Your task to perform on an android device: change your default location settings in chrome Image 0: 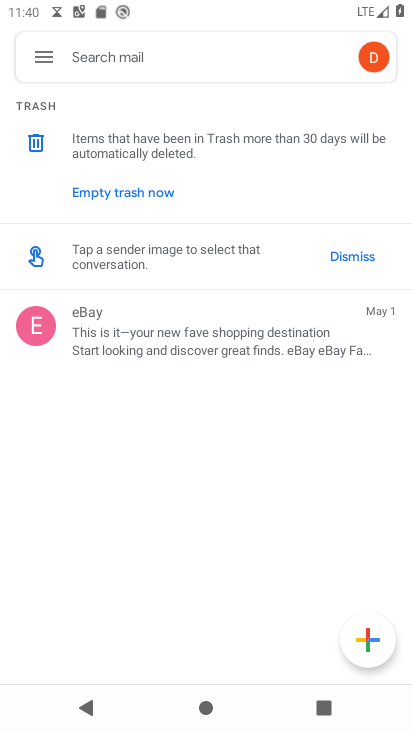
Step 0: press home button
Your task to perform on an android device: change your default location settings in chrome Image 1: 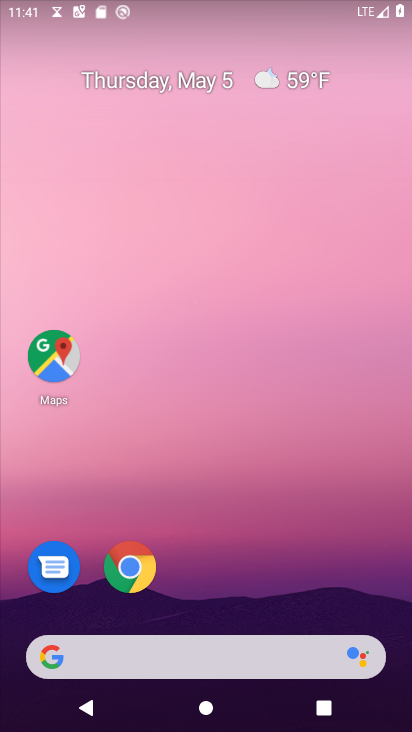
Step 1: click (119, 584)
Your task to perform on an android device: change your default location settings in chrome Image 2: 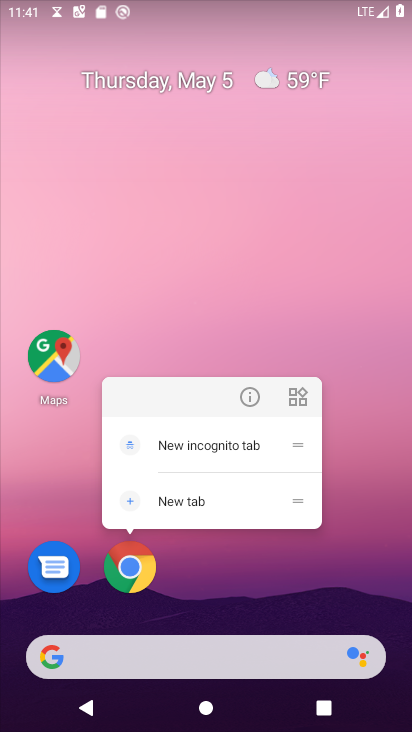
Step 2: click (119, 582)
Your task to perform on an android device: change your default location settings in chrome Image 3: 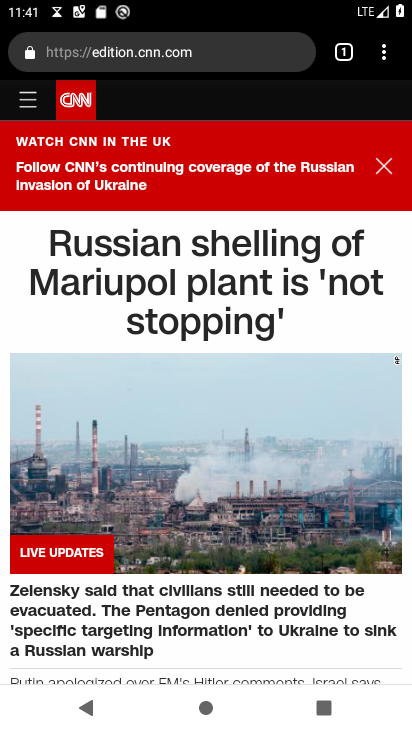
Step 3: drag from (390, 57) to (198, 582)
Your task to perform on an android device: change your default location settings in chrome Image 4: 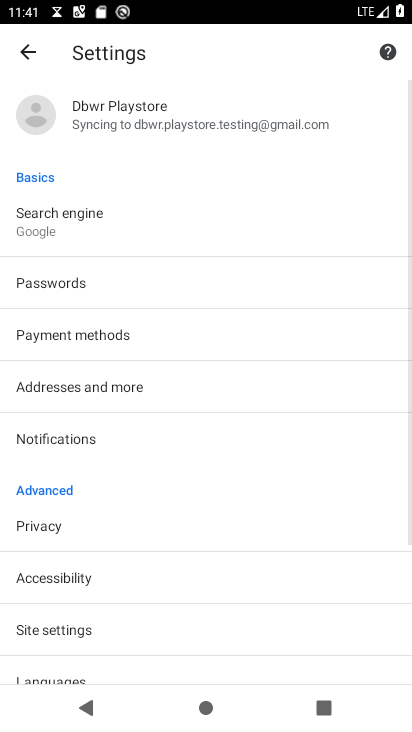
Step 4: click (51, 631)
Your task to perform on an android device: change your default location settings in chrome Image 5: 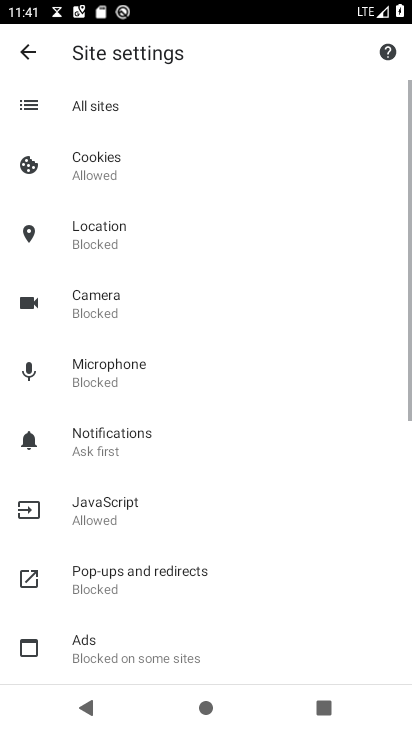
Step 5: click (82, 235)
Your task to perform on an android device: change your default location settings in chrome Image 6: 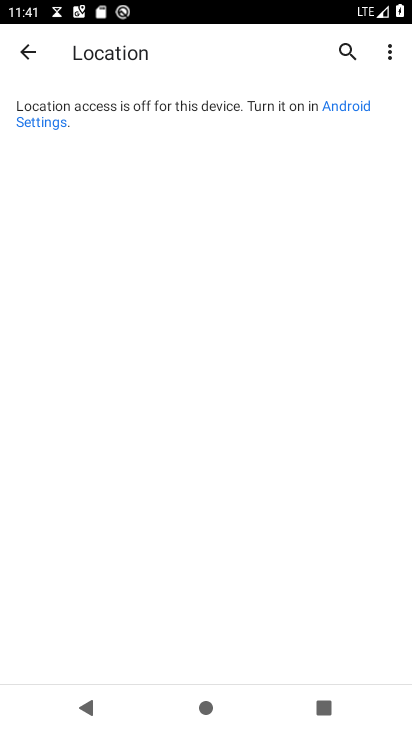
Step 6: click (327, 107)
Your task to perform on an android device: change your default location settings in chrome Image 7: 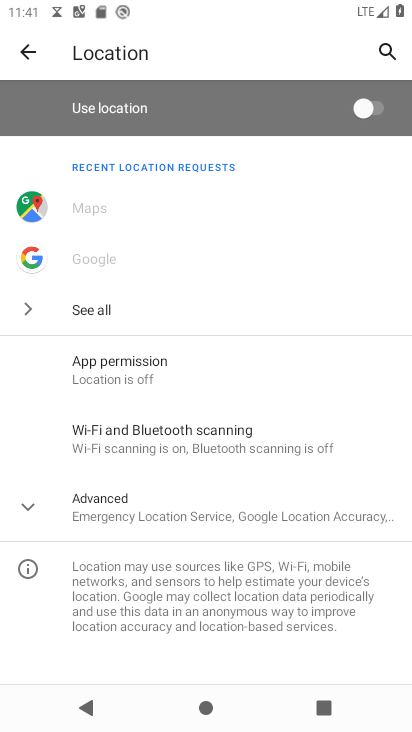
Step 7: click (352, 101)
Your task to perform on an android device: change your default location settings in chrome Image 8: 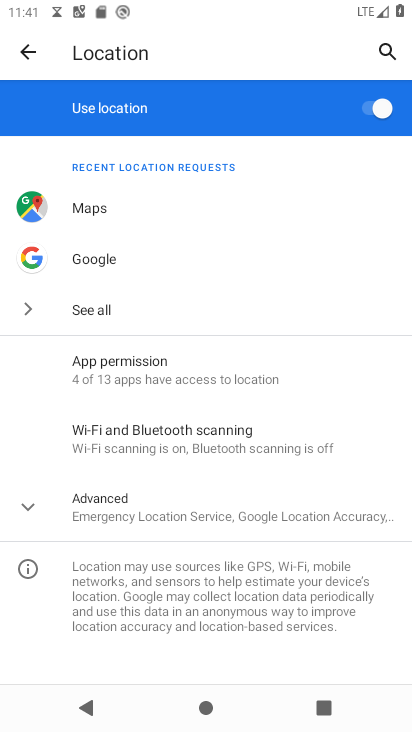
Step 8: task complete